Your task to perform on an android device: toggle location history Image 0: 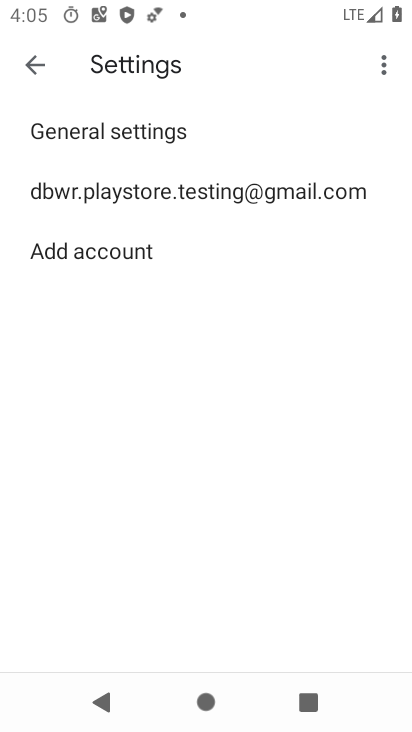
Step 0: press home button
Your task to perform on an android device: toggle location history Image 1: 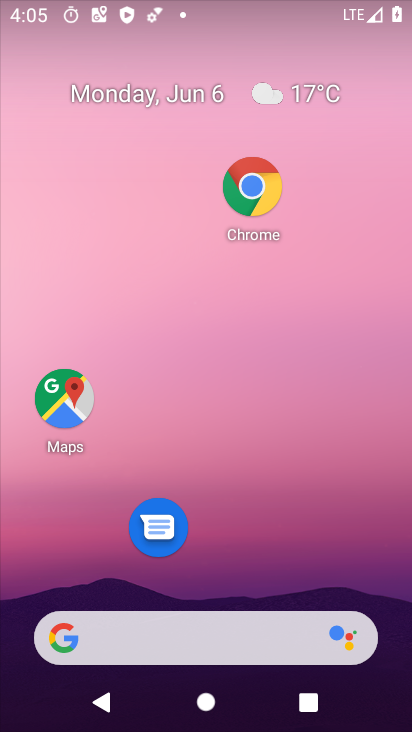
Step 1: drag from (168, 625) to (91, 294)
Your task to perform on an android device: toggle location history Image 2: 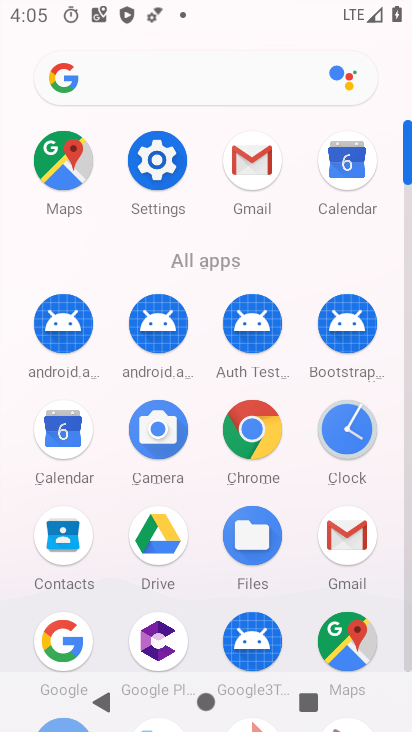
Step 2: click (150, 159)
Your task to perform on an android device: toggle location history Image 3: 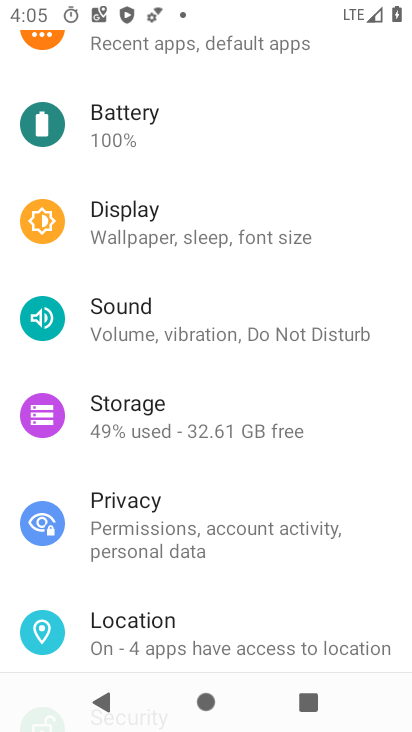
Step 3: click (156, 632)
Your task to perform on an android device: toggle location history Image 4: 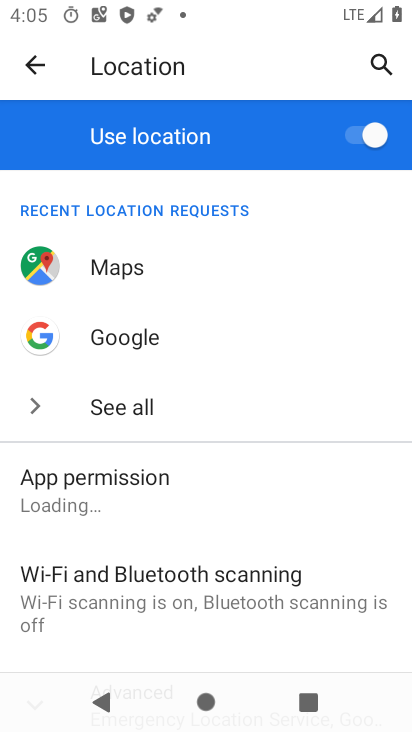
Step 4: drag from (93, 606) to (75, 231)
Your task to perform on an android device: toggle location history Image 5: 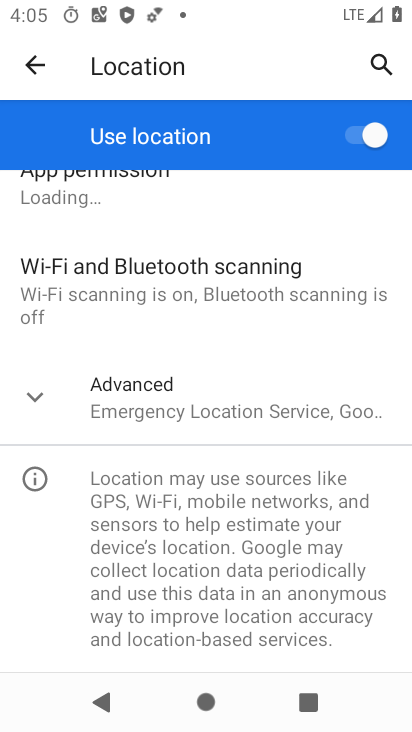
Step 5: click (123, 398)
Your task to perform on an android device: toggle location history Image 6: 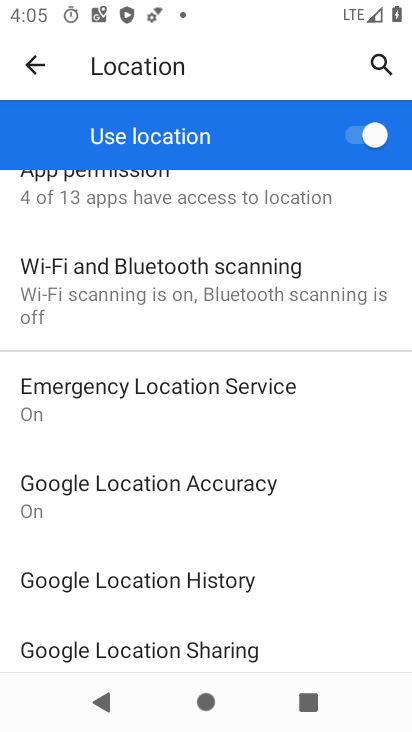
Step 6: click (140, 592)
Your task to perform on an android device: toggle location history Image 7: 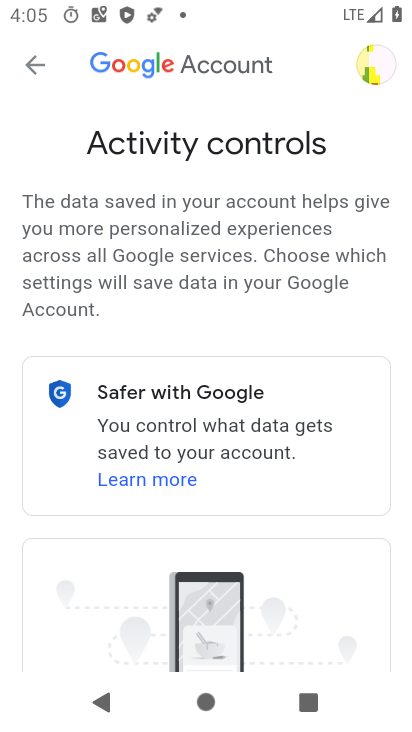
Step 7: drag from (276, 650) to (269, 279)
Your task to perform on an android device: toggle location history Image 8: 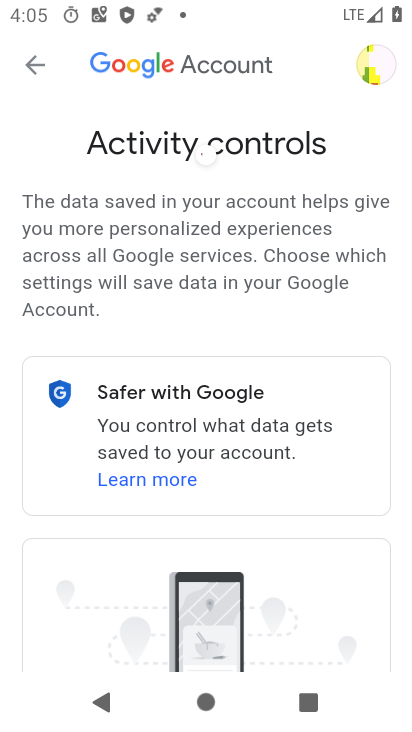
Step 8: drag from (288, 387) to (287, 285)
Your task to perform on an android device: toggle location history Image 9: 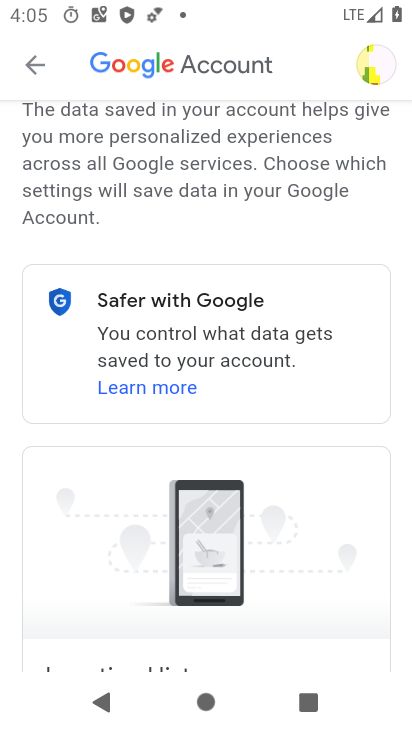
Step 9: drag from (326, 609) to (254, 347)
Your task to perform on an android device: toggle location history Image 10: 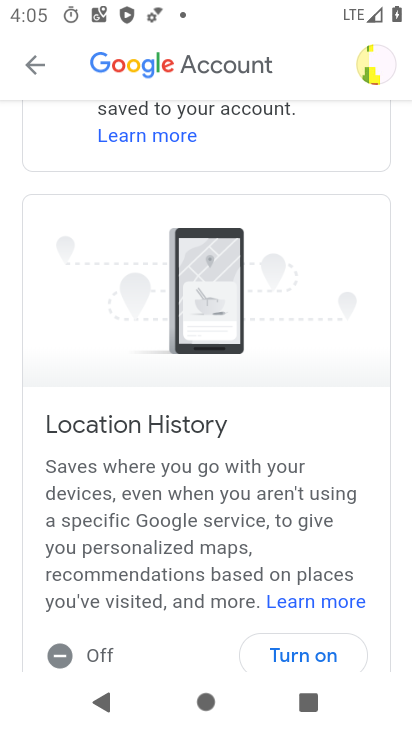
Step 10: click (327, 662)
Your task to perform on an android device: toggle location history Image 11: 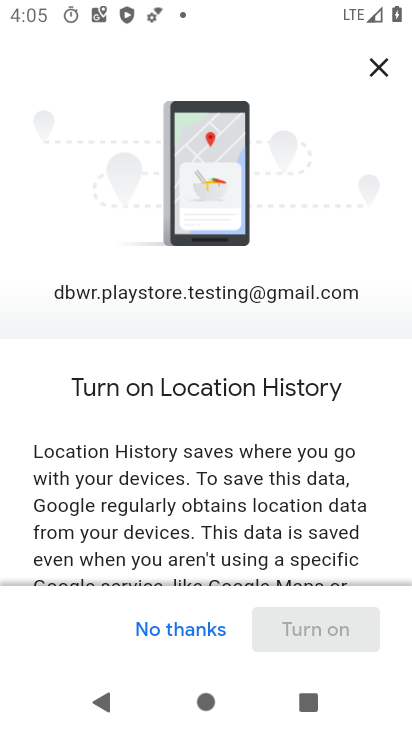
Step 11: drag from (307, 540) to (233, 162)
Your task to perform on an android device: toggle location history Image 12: 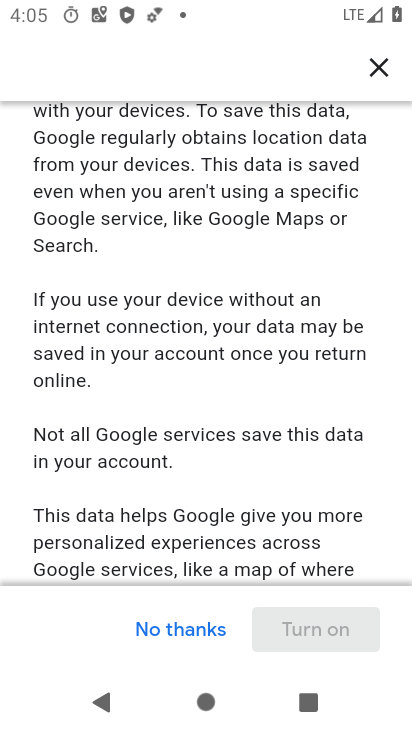
Step 12: drag from (299, 478) to (259, 199)
Your task to perform on an android device: toggle location history Image 13: 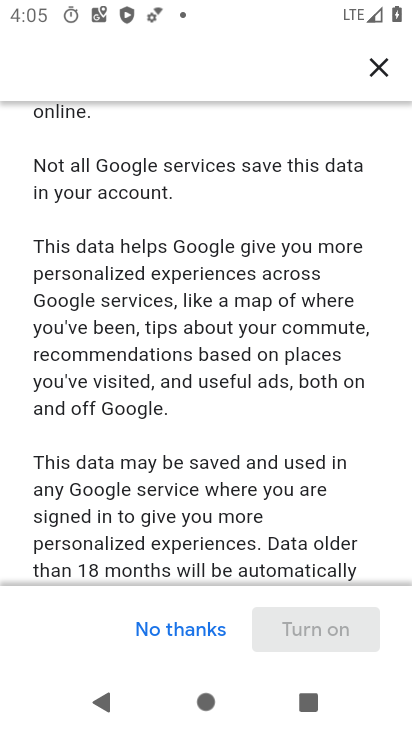
Step 13: drag from (338, 556) to (312, 248)
Your task to perform on an android device: toggle location history Image 14: 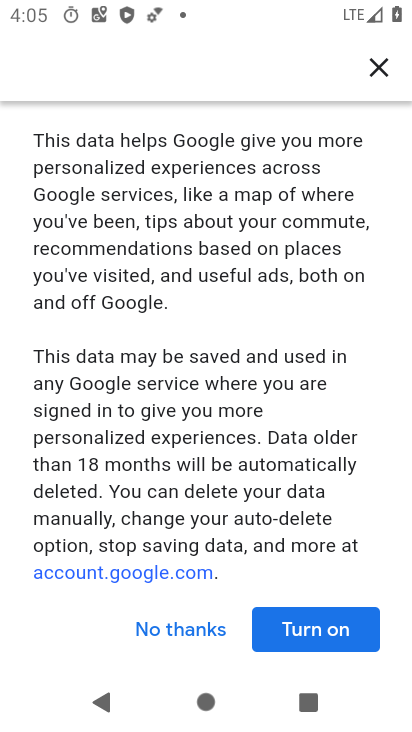
Step 14: click (332, 642)
Your task to perform on an android device: toggle location history Image 15: 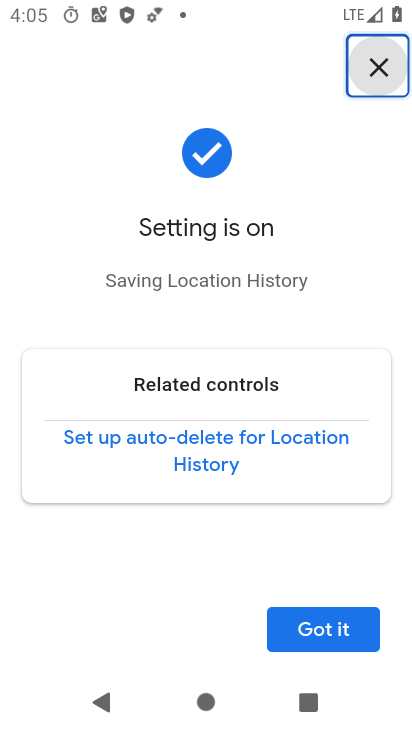
Step 15: click (335, 633)
Your task to perform on an android device: toggle location history Image 16: 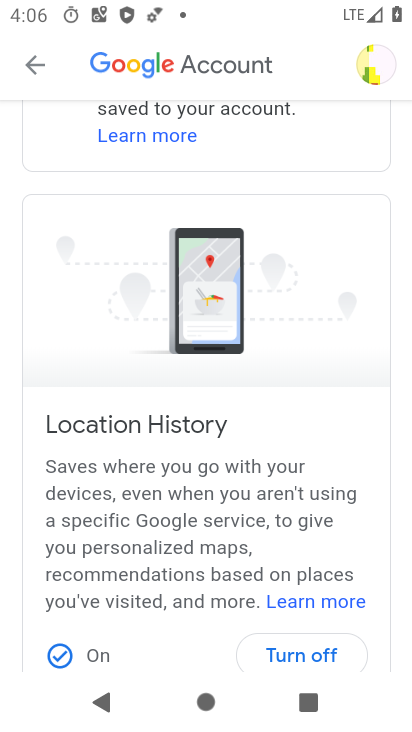
Step 16: task complete